Your task to perform on an android device: Open Reddit.com Image 0: 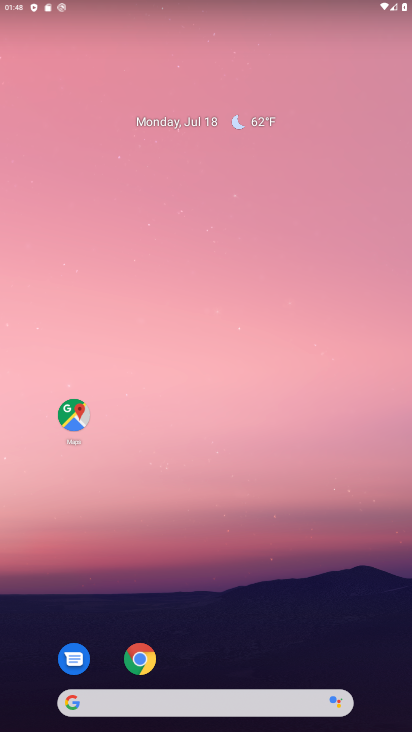
Step 0: drag from (300, 233) to (305, 121)
Your task to perform on an android device: Open Reddit.com Image 1: 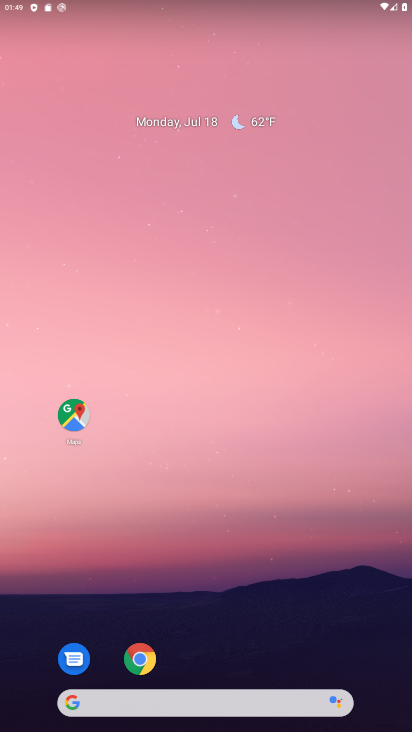
Step 1: drag from (273, 570) to (338, 65)
Your task to perform on an android device: Open Reddit.com Image 2: 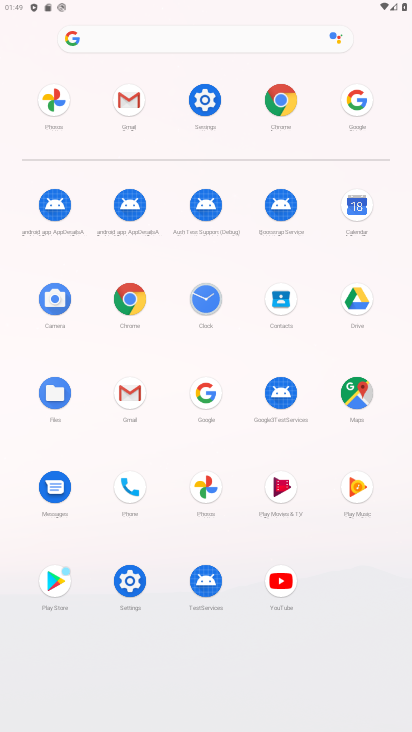
Step 2: click (284, 95)
Your task to perform on an android device: Open Reddit.com Image 3: 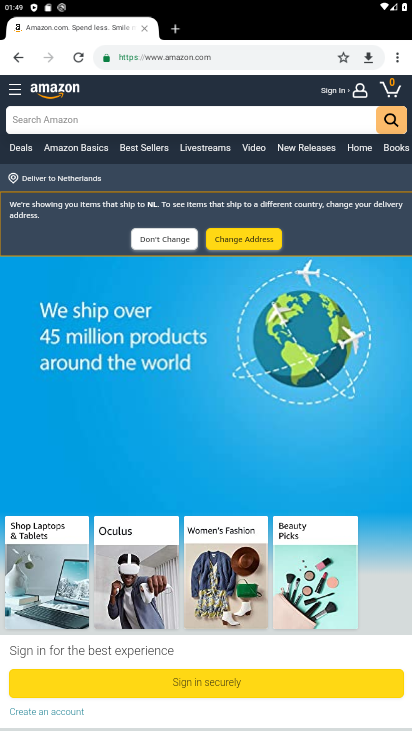
Step 3: click (197, 60)
Your task to perform on an android device: Open Reddit.com Image 4: 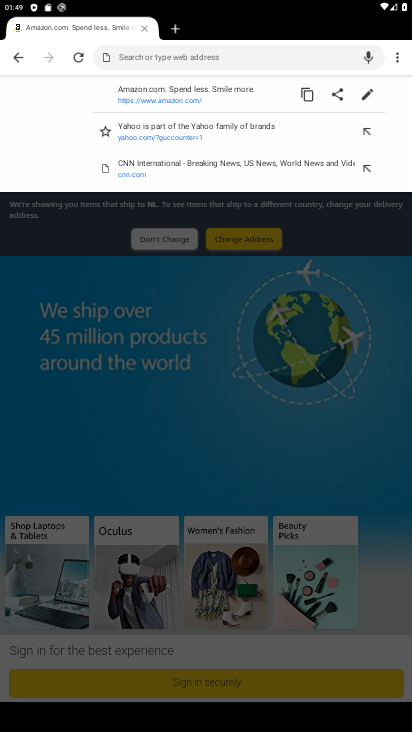
Step 4: type "reddit.com"
Your task to perform on an android device: Open Reddit.com Image 5: 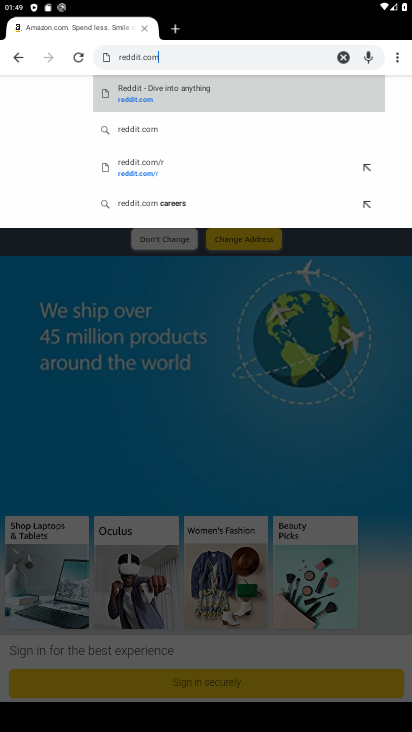
Step 5: click (153, 91)
Your task to perform on an android device: Open Reddit.com Image 6: 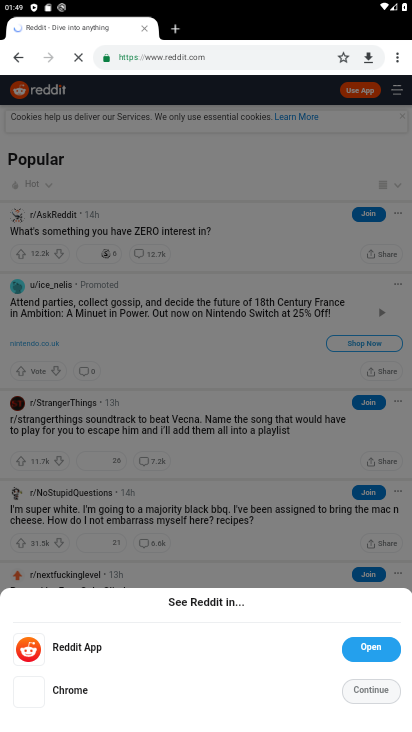
Step 6: task complete